Your task to perform on an android device: Go to wifi settings Image 0: 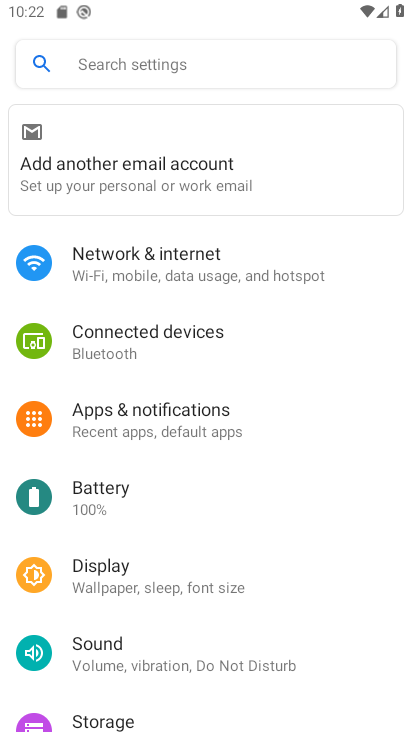
Step 0: click (144, 268)
Your task to perform on an android device: Go to wifi settings Image 1: 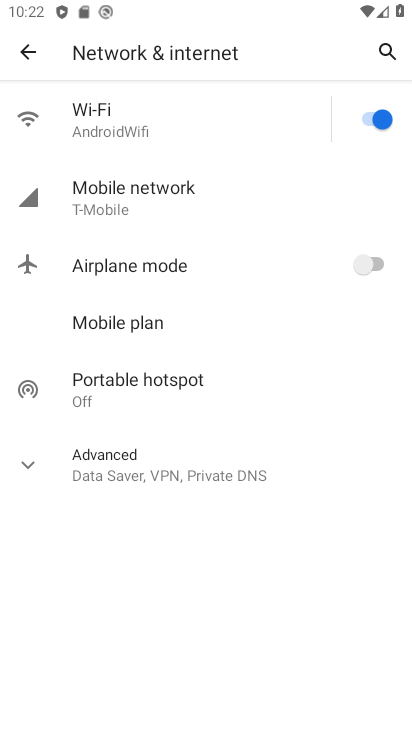
Step 1: click (100, 126)
Your task to perform on an android device: Go to wifi settings Image 2: 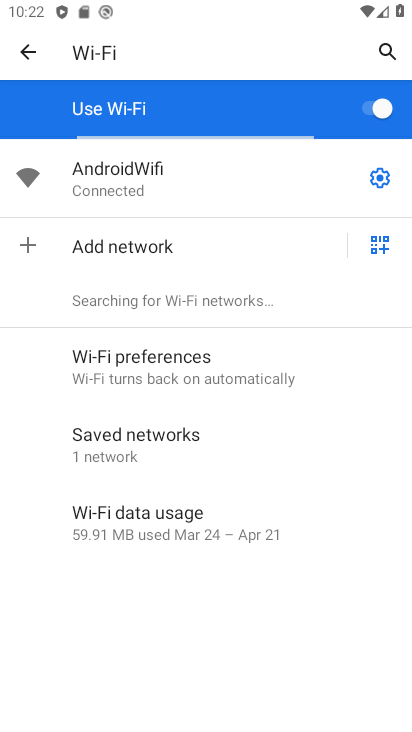
Step 2: task complete